Your task to perform on an android device: empty trash in google photos Image 0: 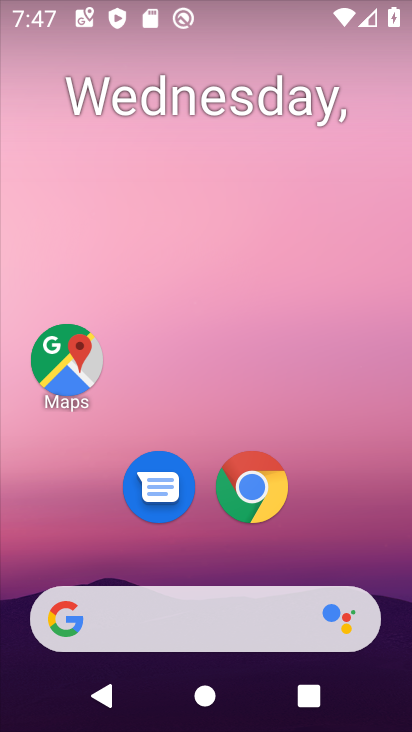
Step 0: drag from (384, 561) to (407, 223)
Your task to perform on an android device: empty trash in google photos Image 1: 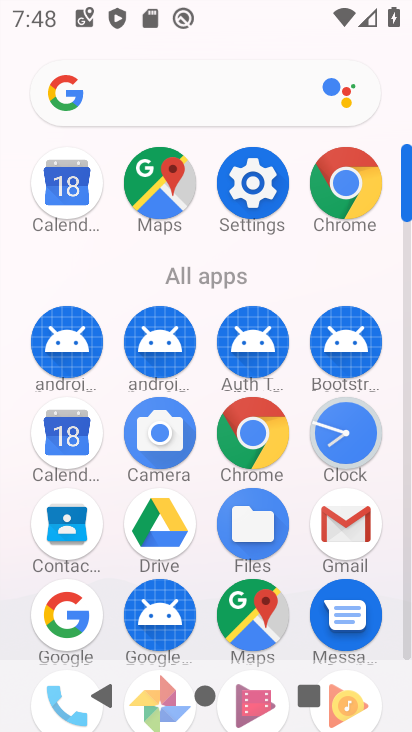
Step 1: drag from (401, 562) to (402, 519)
Your task to perform on an android device: empty trash in google photos Image 2: 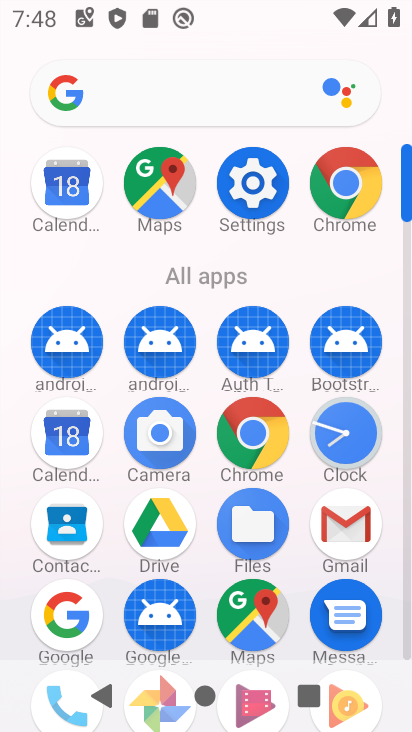
Step 2: drag from (196, 568) to (218, 408)
Your task to perform on an android device: empty trash in google photos Image 3: 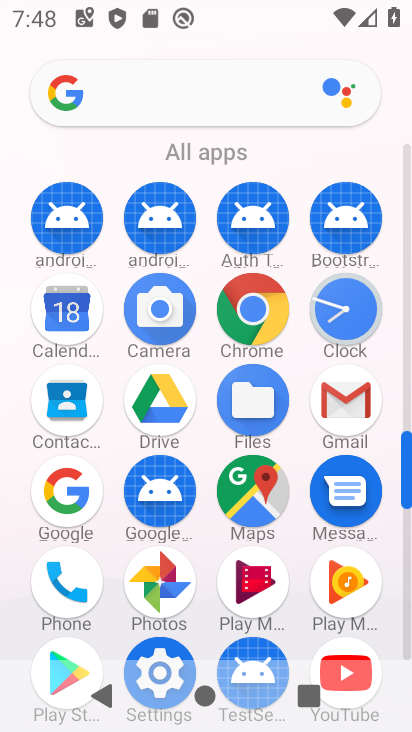
Step 3: drag from (200, 626) to (210, 464)
Your task to perform on an android device: empty trash in google photos Image 4: 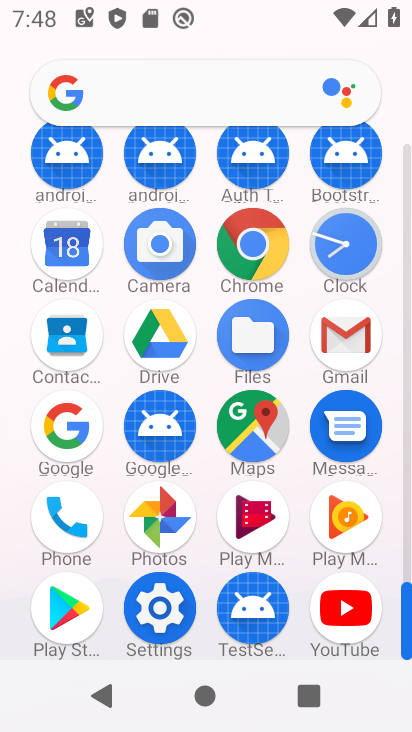
Step 4: click (162, 537)
Your task to perform on an android device: empty trash in google photos Image 5: 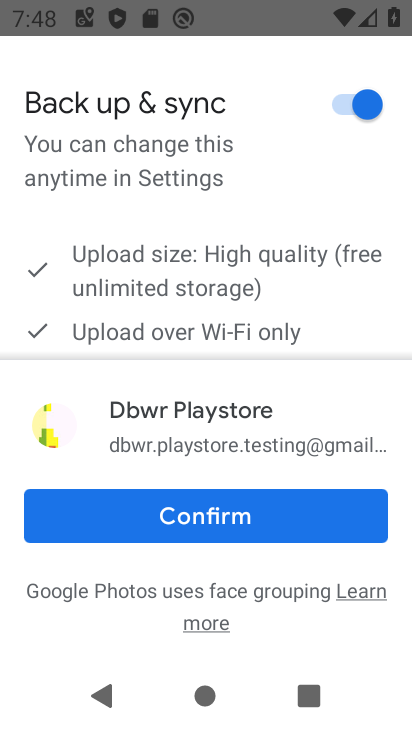
Step 5: click (195, 534)
Your task to perform on an android device: empty trash in google photos Image 6: 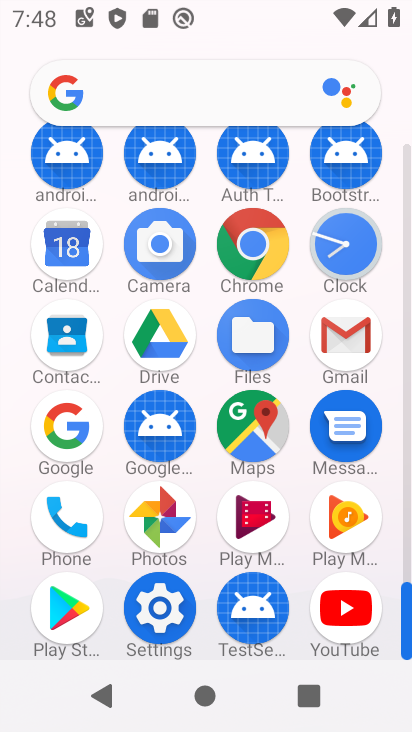
Step 6: click (180, 530)
Your task to perform on an android device: empty trash in google photos Image 7: 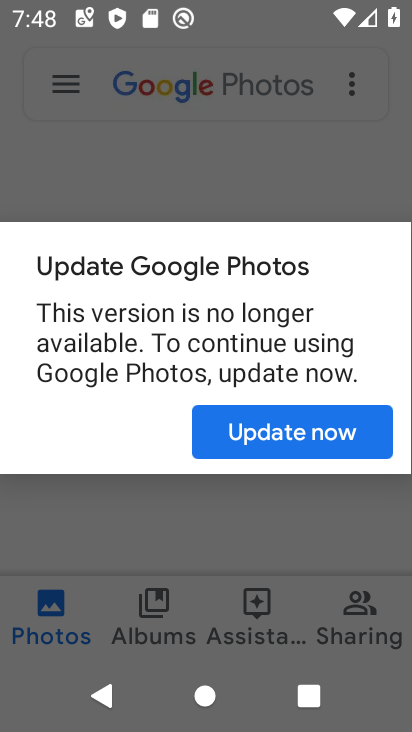
Step 7: click (291, 455)
Your task to perform on an android device: empty trash in google photos Image 8: 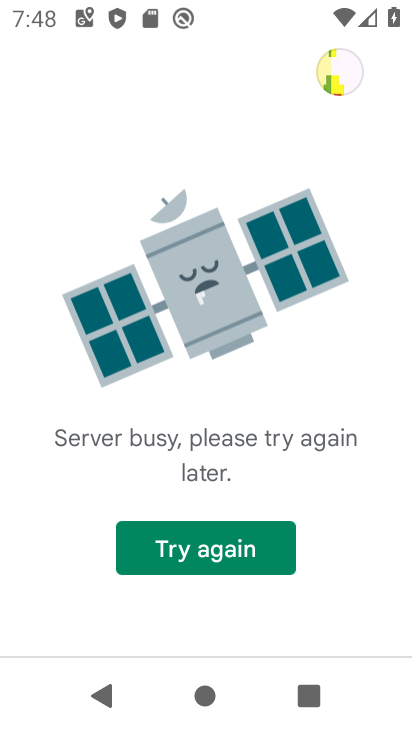
Step 8: click (280, 553)
Your task to perform on an android device: empty trash in google photos Image 9: 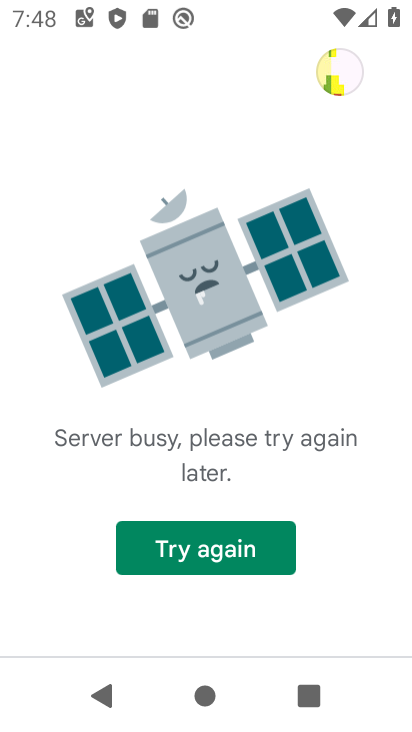
Step 9: click (229, 541)
Your task to perform on an android device: empty trash in google photos Image 10: 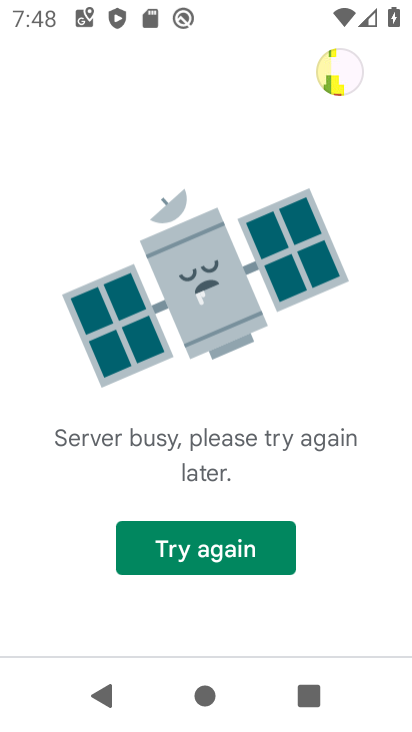
Step 10: task complete